Your task to perform on an android device: turn on the 24-hour format for clock Image 0: 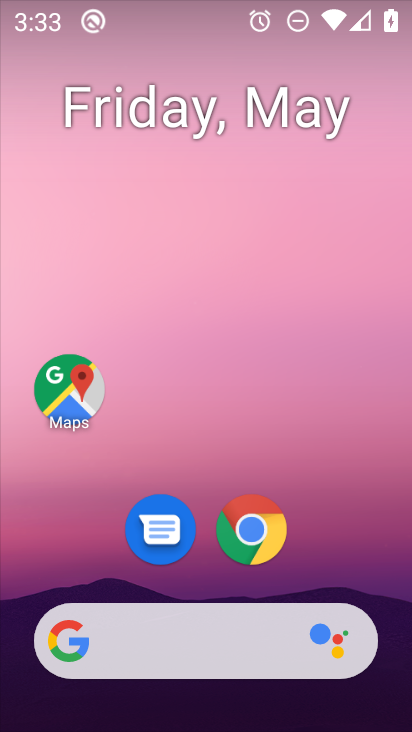
Step 0: drag from (396, 580) to (411, 98)
Your task to perform on an android device: turn on the 24-hour format for clock Image 1: 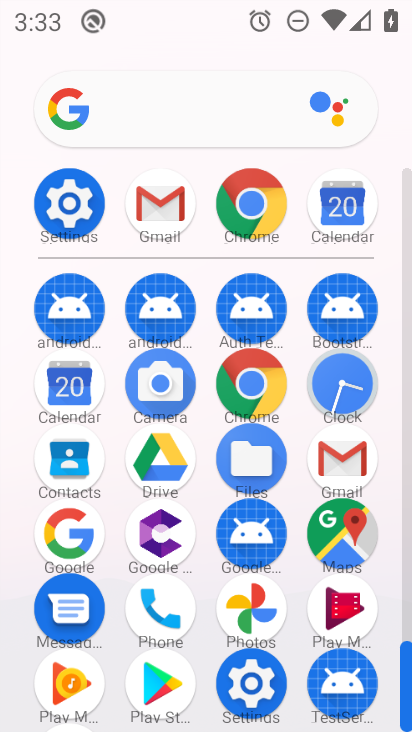
Step 1: click (349, 377)
Your task to perform on an android device: turn on the 24-hour format for clock Image 2: 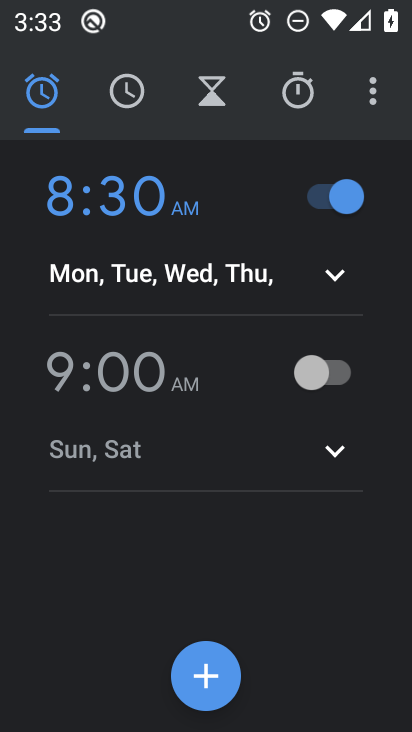
Step 2: click (372, 82)
Your task to perform on an android device: turn on the 24-hour format for clock Image 3: 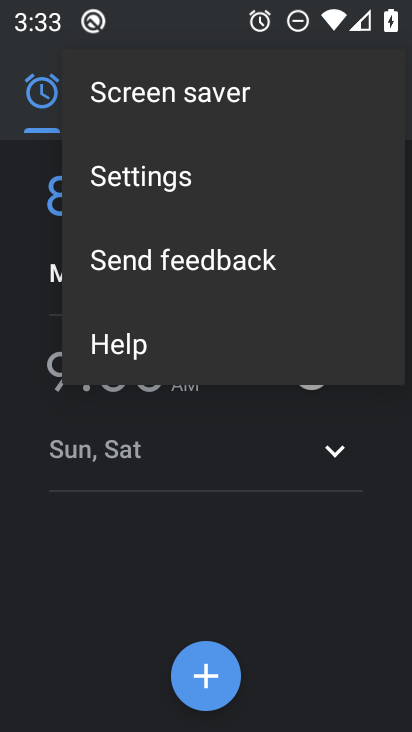
Step 3: click (175, 178)
Your task to perform on an android device: turn on the 24-hour format for clock Image 4: 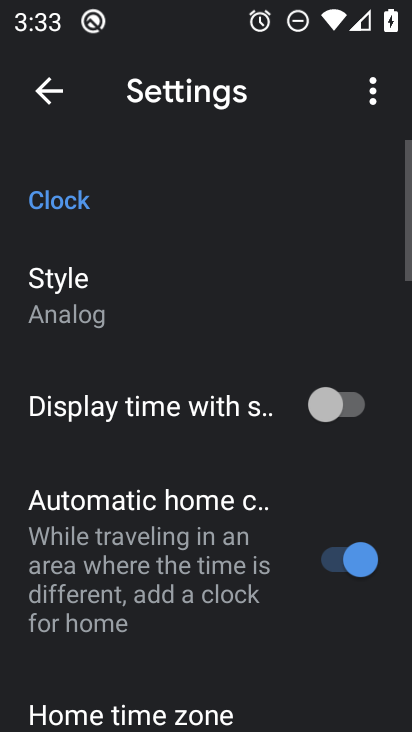
Step 4: drag from (254, 700) to (225, 291)
Your task to perform on an android device: turn on the 24-hour format for clock Image 5: 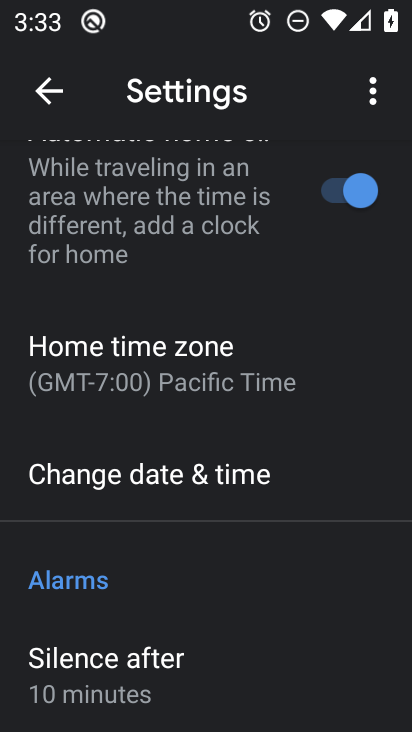
Step 5: drag from (283, 617) to (242, 271)
Your task to perform on an android device: turn on the 24-hour format for clock Image 6: 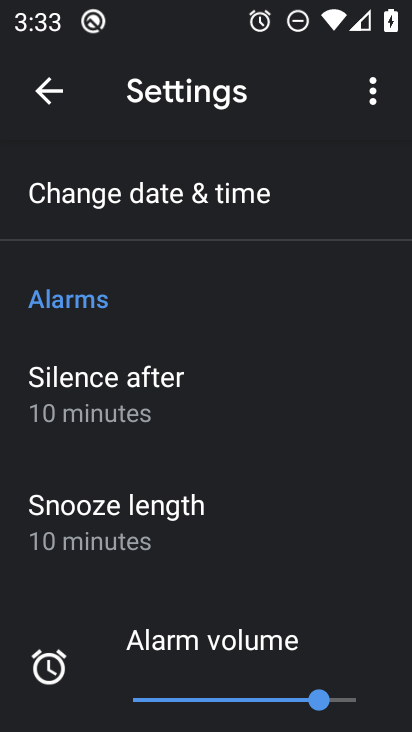
Step 6: click (218, 190)
Your task to perform on an android device: turn on the 24-hour format for clock Image 7: 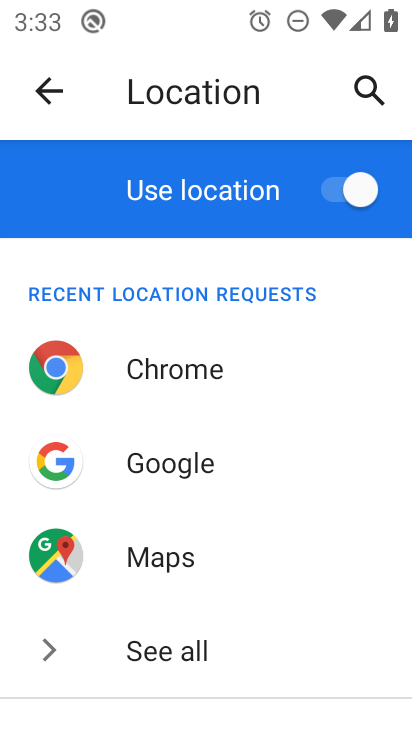
Step 7: click (44, 85)
Your task to perform on an android device: turn on the 24-hour format for clock Image 8: 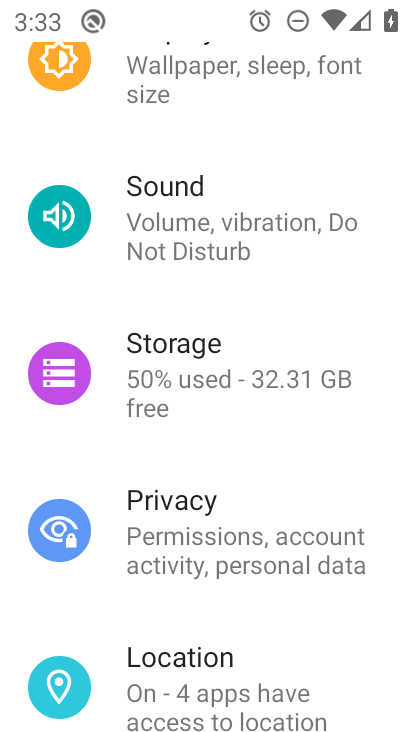
Step 8: press back button
Your task to perform on an android device: turn on the 24-hour format for clock Image 9: 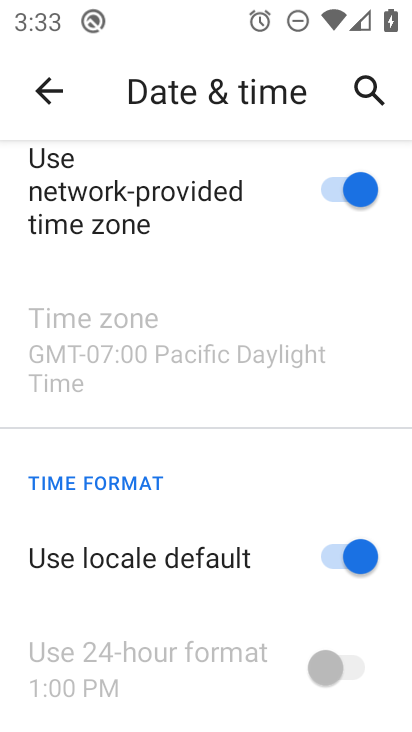
Step 9: drag from (164, 628) to (174, 281)
Your task to perform on an android device: turn on the 24-hour format for clock Image 10: 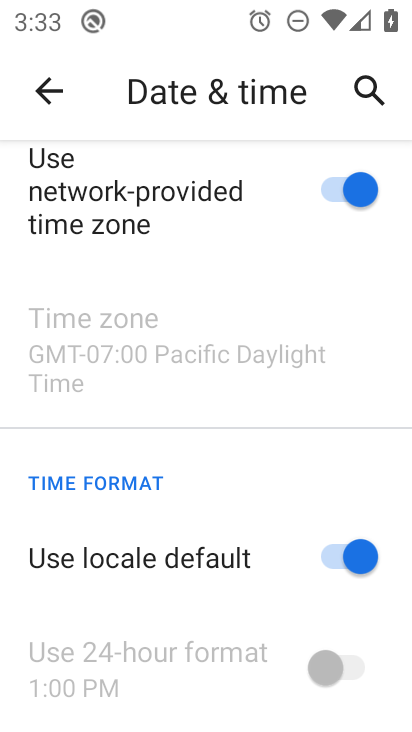
Step 10: click (332, 562)
Your task to perform on an android device: turn on the 24-hour format for clock Image 11: 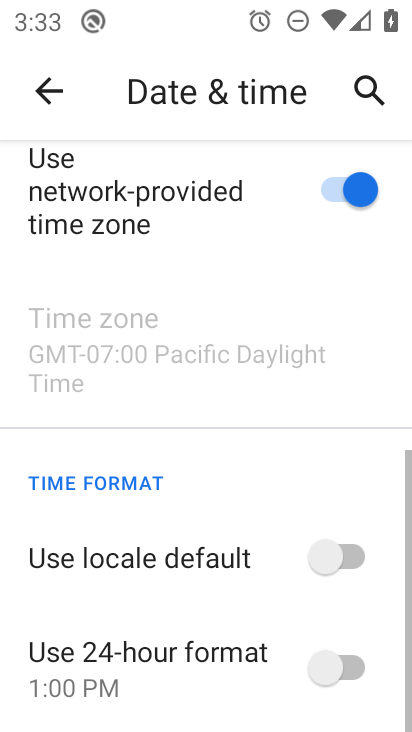
Step 11: click (357, 671)
Your task to perform on an android device: turn on the 24-hour format for clock Image 12: 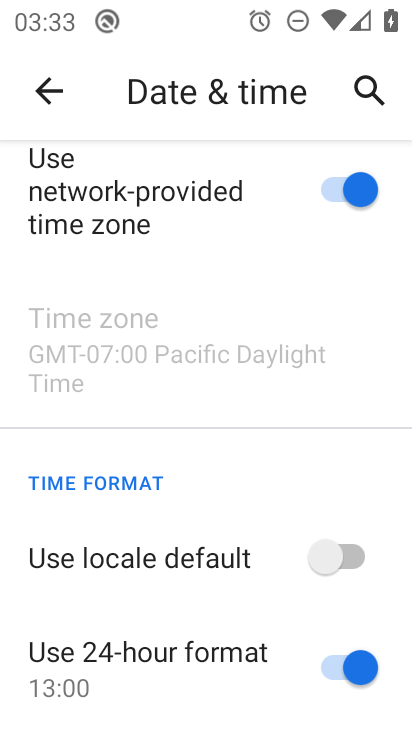
Step 12: task complete